Your task to perform on an android device: What's the weather going to be this weekend? Image 0: 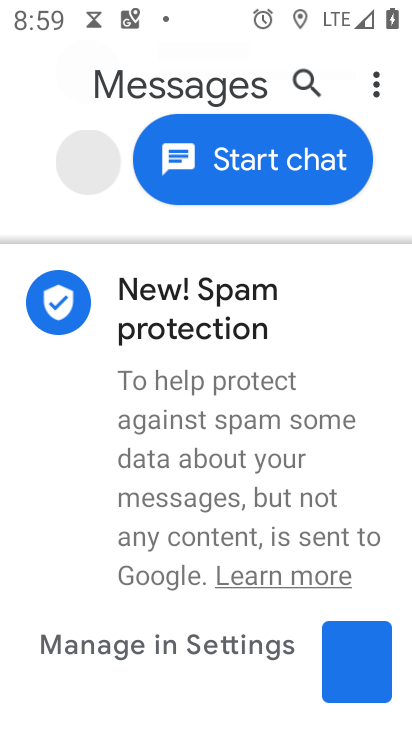
Step 0: press home button
Your task to perform on an android device: What's the weather going to be this weekend? Image 1: 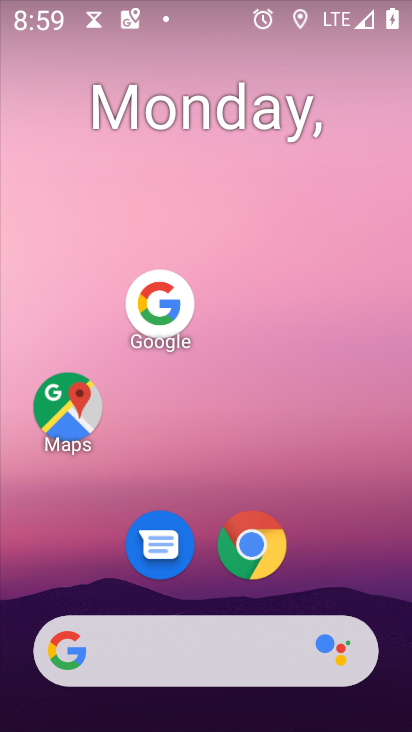
Step 1: click (81, 646)
Your task to perform on an android device: What's the weather going to be this weekend? Image 2: 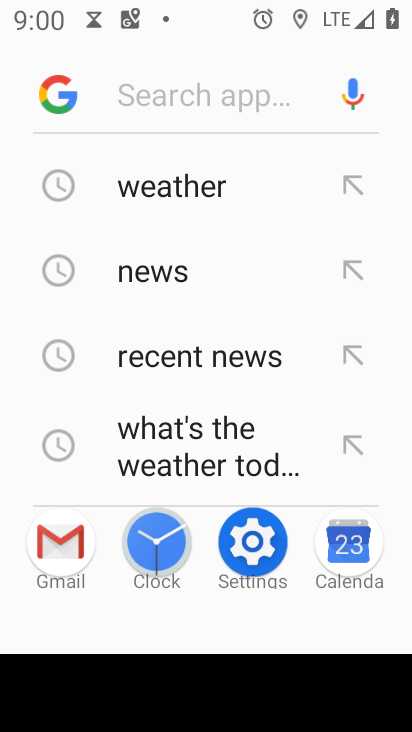
Step 2: click (200, 188)
Your task to perform on an android device: What's the weather going to be this weekend? Image 3: 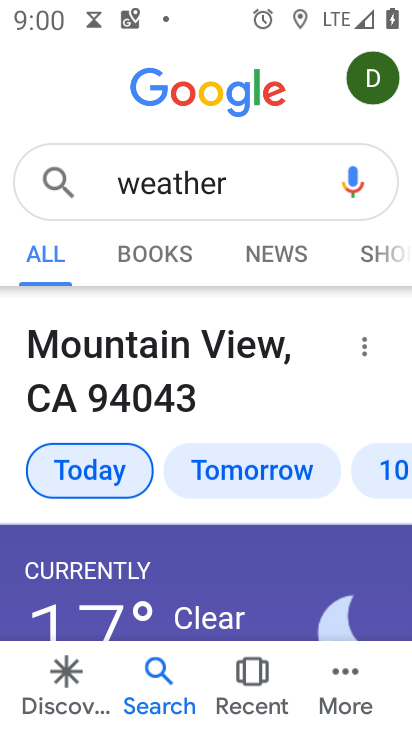
Step 3: drag from (334, 487) to (45, 462)
Your task to perform on an android device: What's the weather going to be this weekend? Image 4: 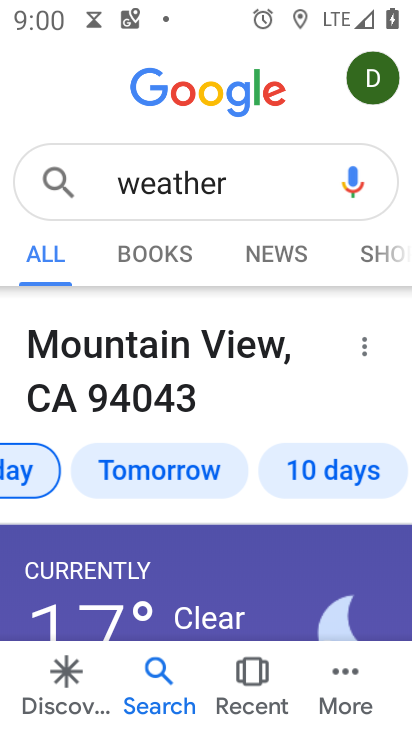
Step 4: click (349, 469)
Your task to perform on an android device: What's the weather going to be this weekend? Image 5: 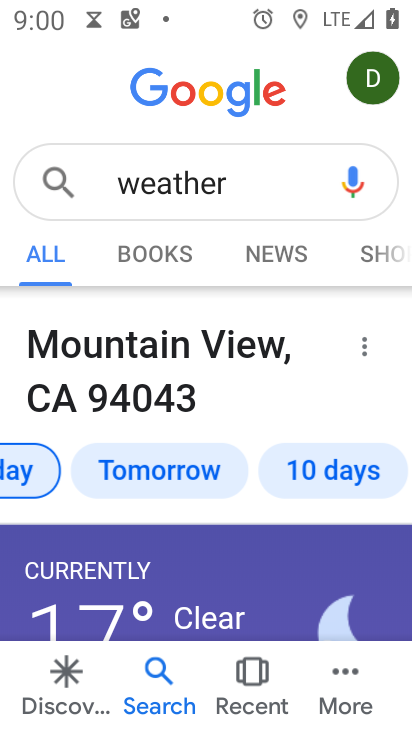
Step 5: click (349, 468)
Your task to perform on an android device: What's the weather going to be this weekend? Image 6: 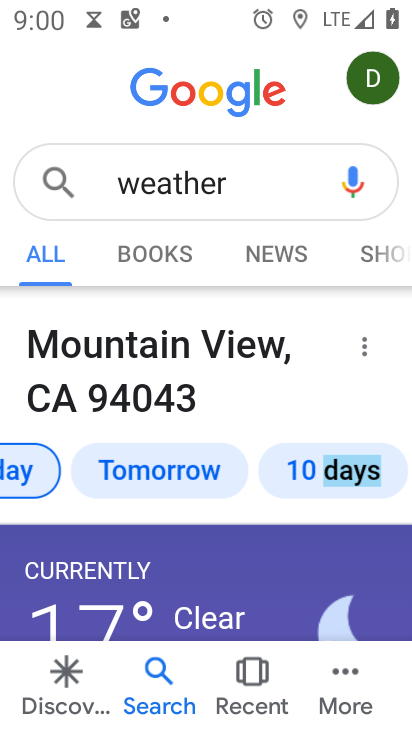
Step 6: click (349, 467)
Your task to perform on an android device: What's the weather going to be this weekend? Image 7: 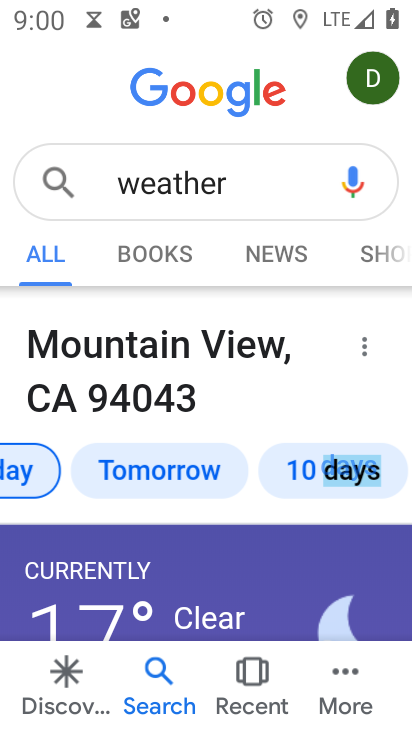
Step 7: click (326, 483)
Your task to perform on an android device: What's the weather going to be this weekend? Image 8: 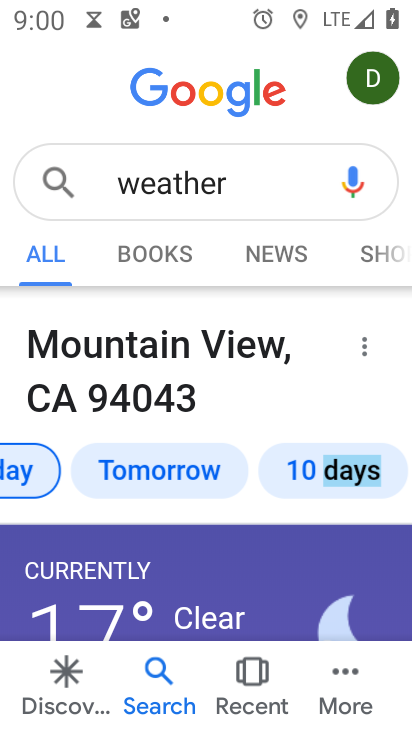
Step 8: click (335, 464)
Your task to perform on an android device: What's the weather going to be this weekend? Image 9: 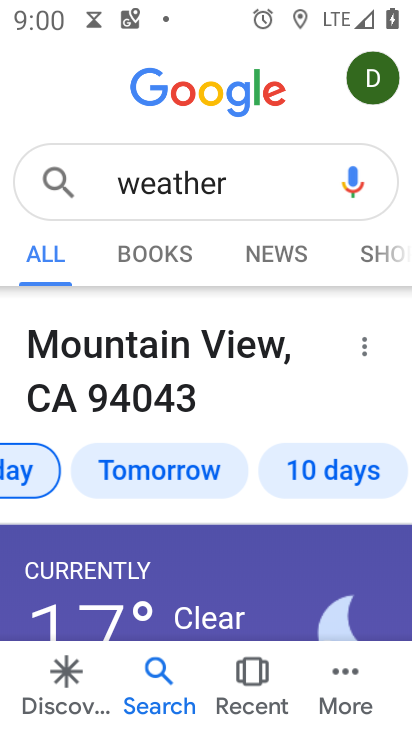
Step 9: task complete